Your task to perform on an android device: See recent photos Image 0: 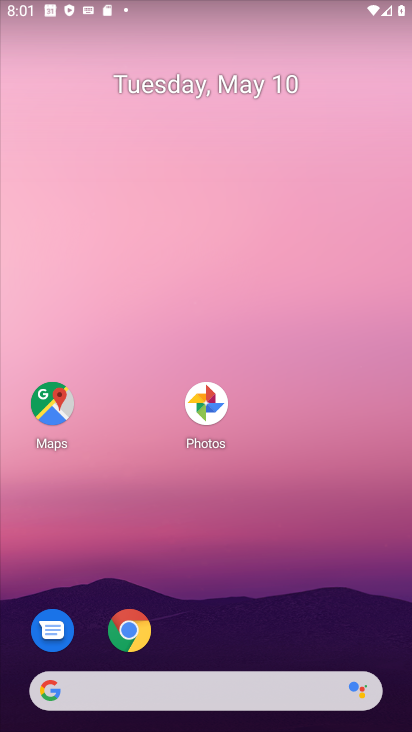
Step 0: click (200, 393)
Your task to perform on an android device: See recent photos Image 1: 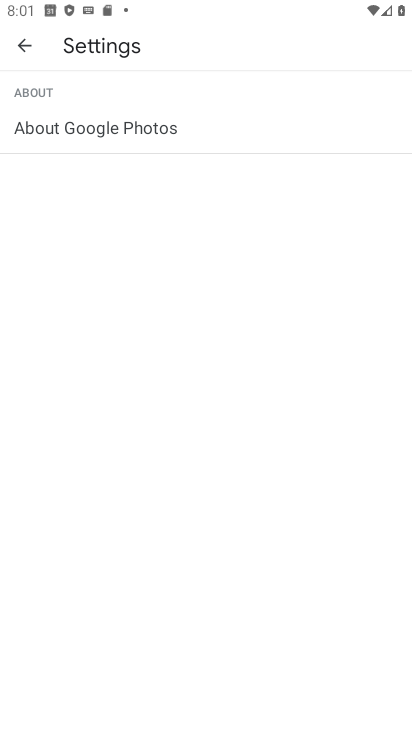
Step 1: press back button
Your task to perform on an android device: See recent photos Image 2: 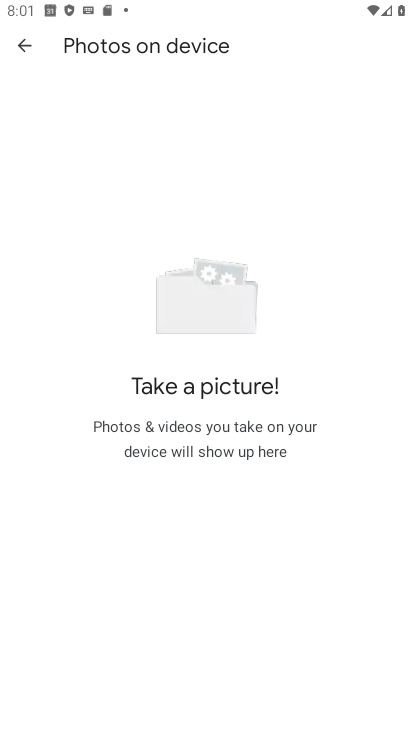
Step 2: click (28, 37)
Your task to perform on an android device: See recent photos Image 3: 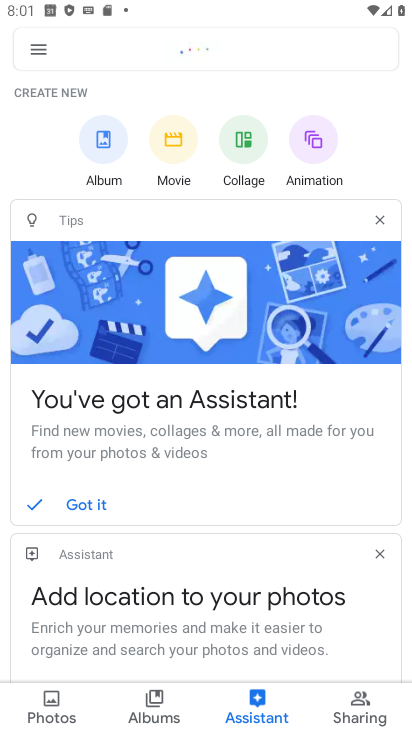
Step 3: click (100, 141)
Your task to perform on an android device: See recent photos Image 4: 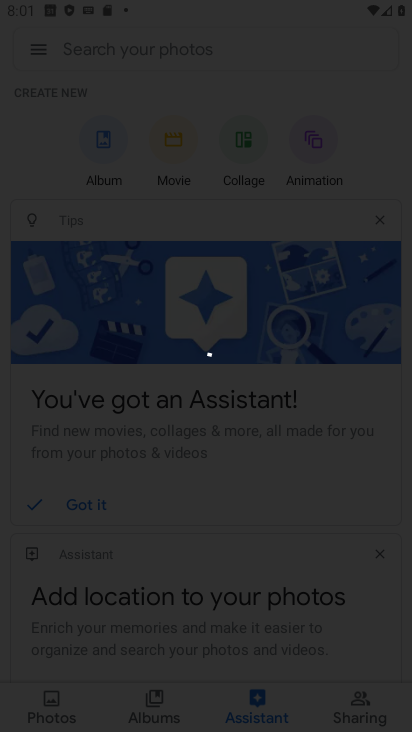
Step 4: task complete